Your task to perform on an android device: change notifications settings Image 0: 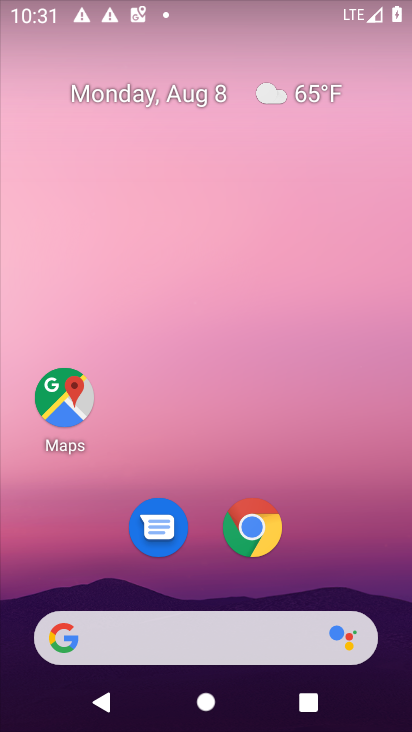
Step 0: drag from (386, 677) to (349, 220)
Your task to perform on an android device: change notifications settings Image 1: 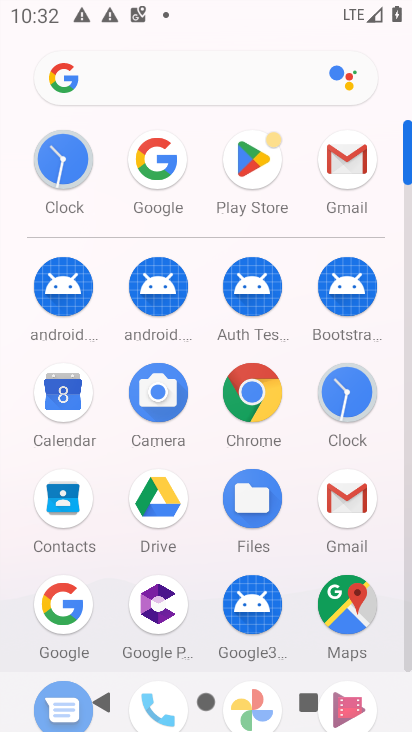
Step 1: drag from (203, 639) to (203, 289)
Your task to perform on an android device: change notifications settings Image 2: 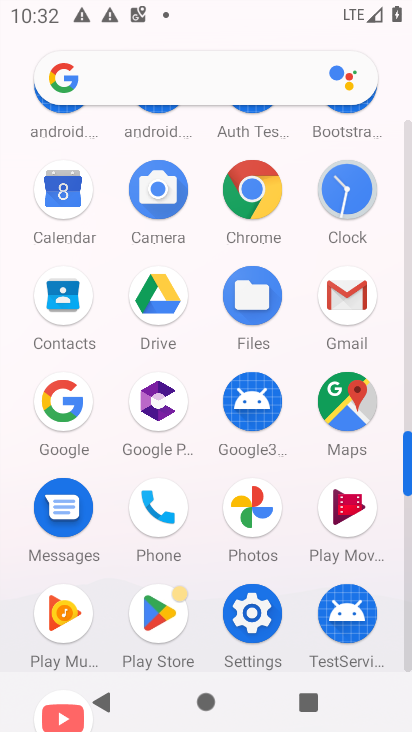
Step 2: click (245, 603)
Your task to perform on an android device: change notifications settings Image 3: 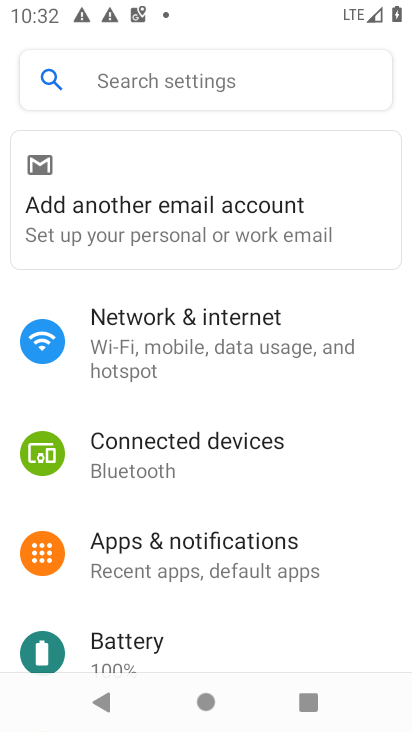
Step 3: click (231, 547)
Your task to perform on an android device: change notifications settings Image 4: 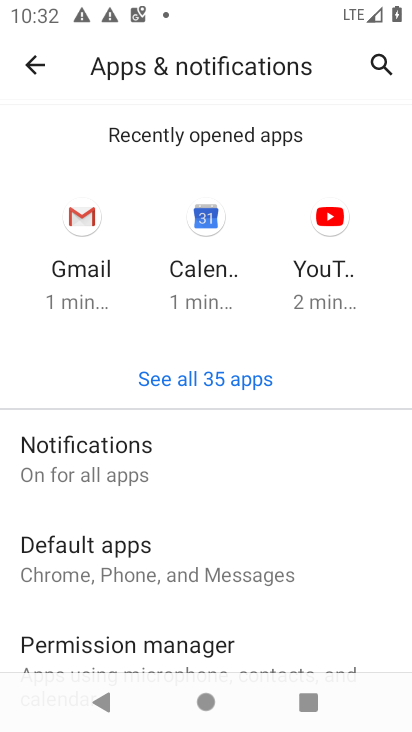
Step 4: click (87, 436)
Your task to perform on an android device: change notifications settings Image 5: 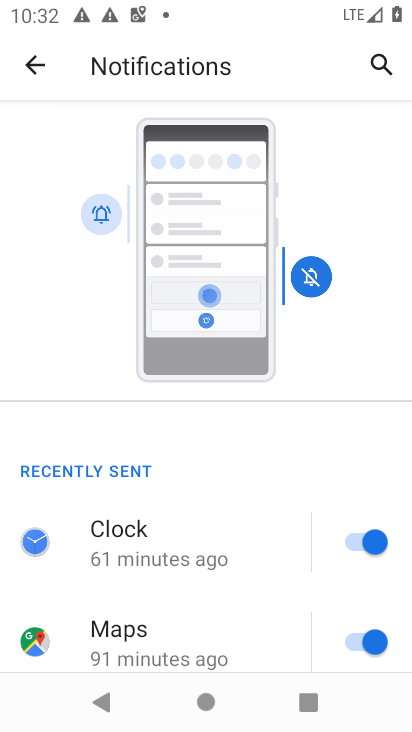
Step 5: drag from (261, 635) to (260, 245)
Your task to perform on an android device: change notifications settings Image 6: 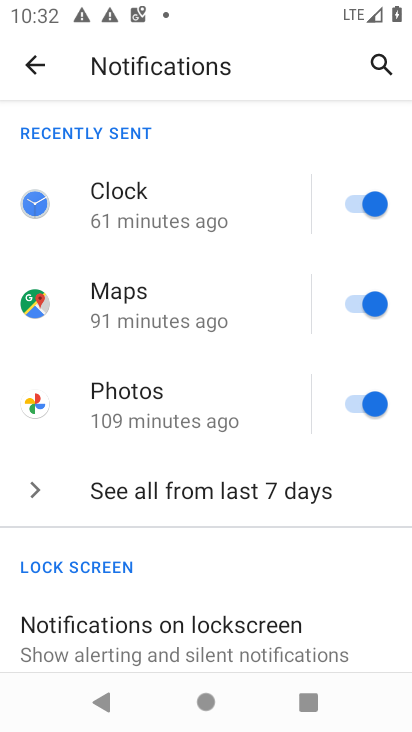
Step 6: drag from (172, 575) to (193, 304)
Your task to perform on an android device: change notifications settings Image 7: 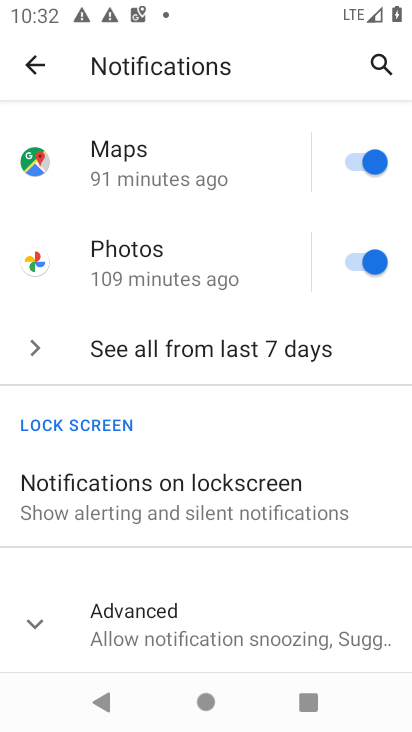
Step 7: click (26, 622)
Your task to perform on an android device: change notifications settings Image 8: 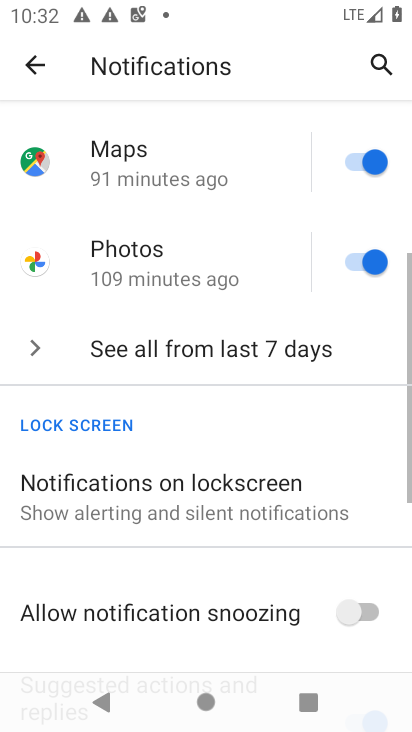
Step 8: task complete